Your task to perform on an android device: delete the emails in spam in the gmail app Image 0: 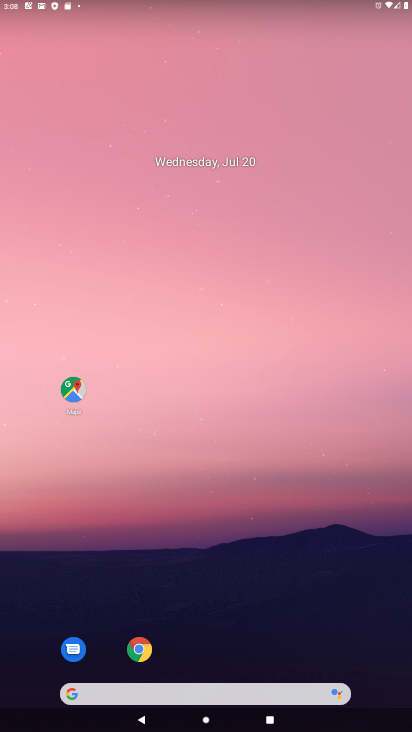
Step 0: drag from (196, 696) to (328, 183)
Your task to perform on an android device: delete the emails in spam in the gmail app Image 1: 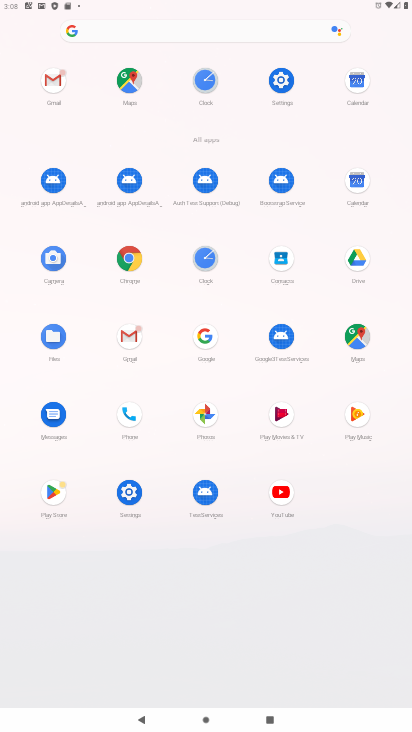
Step 1: click (52, 76)
Your task to perform on an android device: delete the emails in spam in the gmail app Image 2: 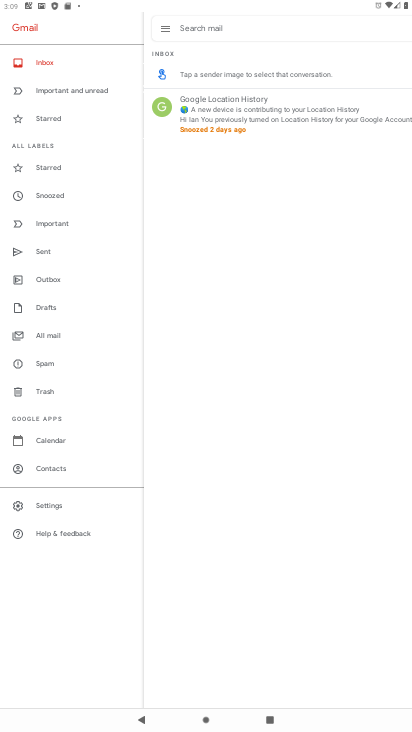
Step 2: click (46, 361)
Your task to perform on an android device: delete the emails in spam in the gmail app Image 3: 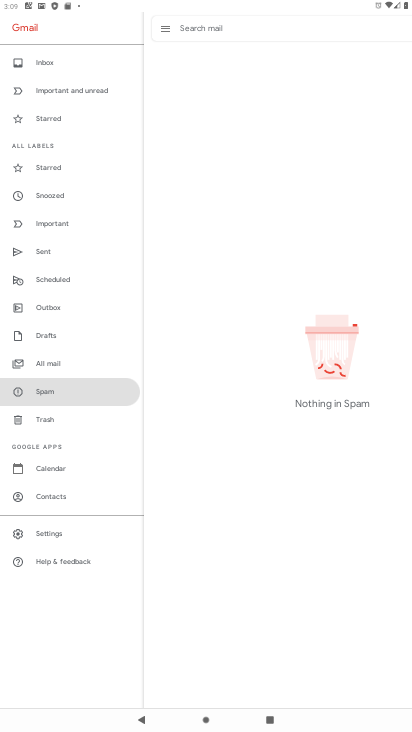
Step 3: task complete